Your task to perform on an android device: toggle notification dots Image 0: 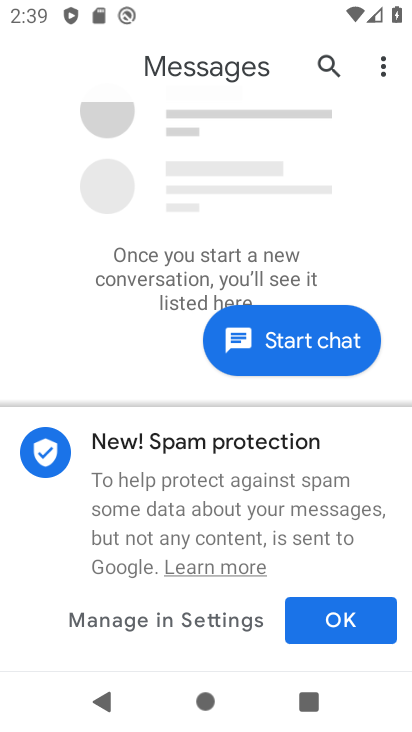
Step 0: press home button
Your task to perform on an android device: toggle notification dots Image 1: 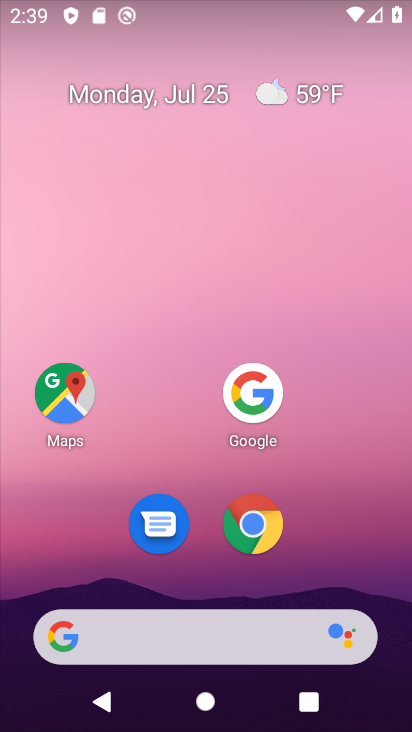
Step 1: drag from (186, 629) to (318, 16)
Your task to perform on an android device: toggle notification dots Image 2: 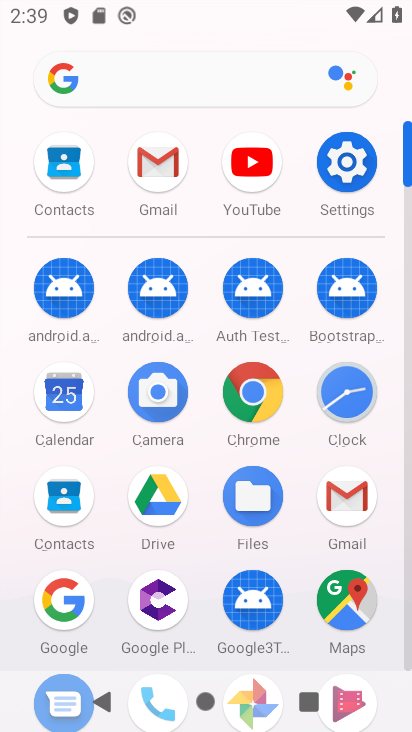
Step 2: click (345, 168)
Your task to perform on an android device: toggle notification dots Image 3: 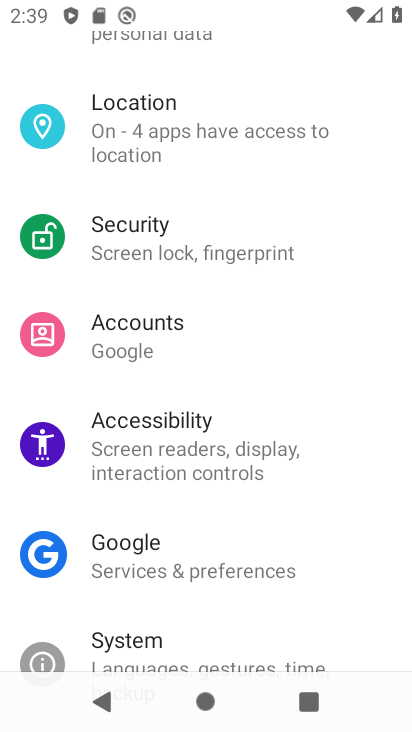
Step 3: drag from (289, 596) to (307, 155)
Your task to perform on an android device: toggle notification dots Image 4: 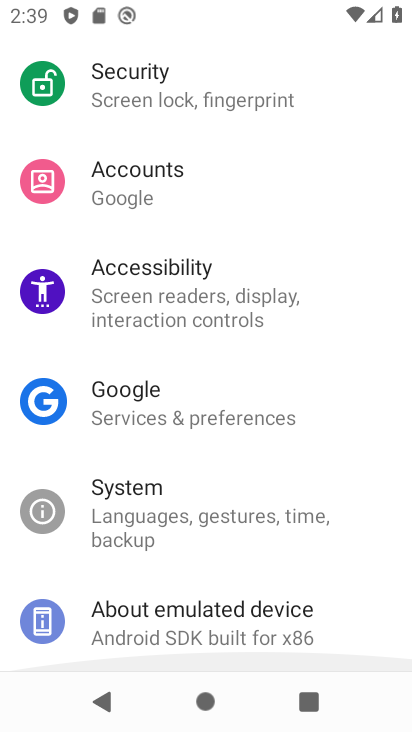
Step 4: drag from (309, 157) to (327, 658)
Your task to perform on an android device: toggle notification dots Image 5: 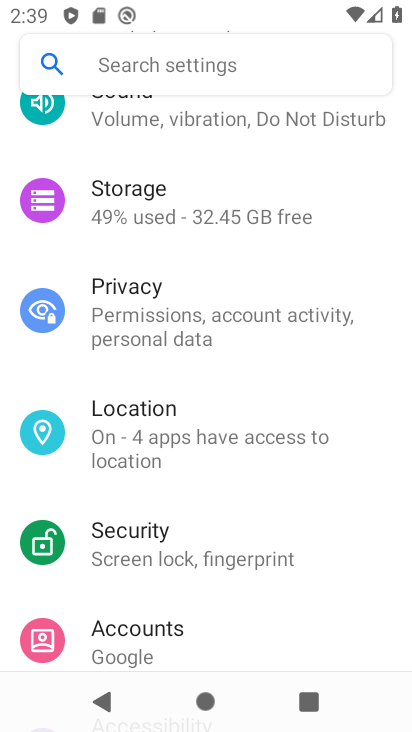
Step 5: drag from (308, 171) to (317, 612)
Your task to perform on an android device: toggle notification dots Image 6: 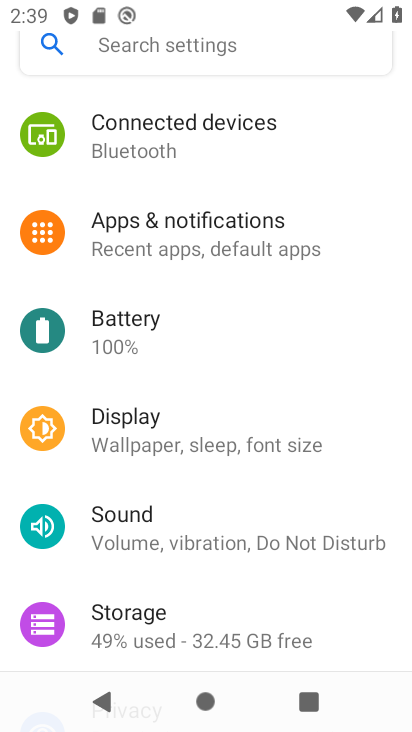
Step 6: click (206, 233)
Your task to perform on an android device: toggle notification dots Image 7: 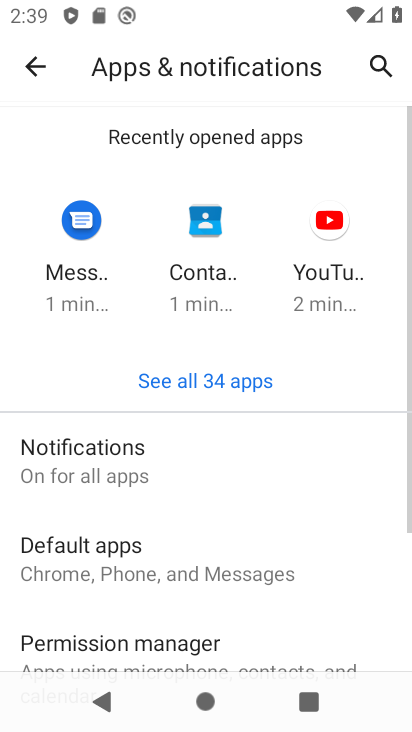
Step 7: click (116, 458)
Your task to perform on an android device: toggle notification dots Image 8: 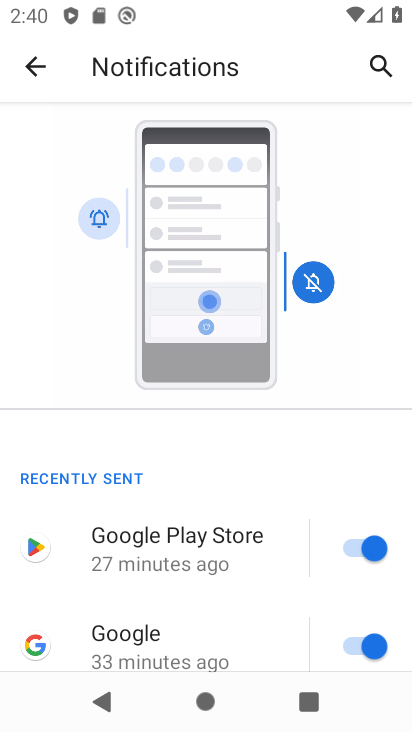
Step 8: drag from (285, 654) to (254, 58)
Your task to perform on an android device: toggle notification dots Image 9: 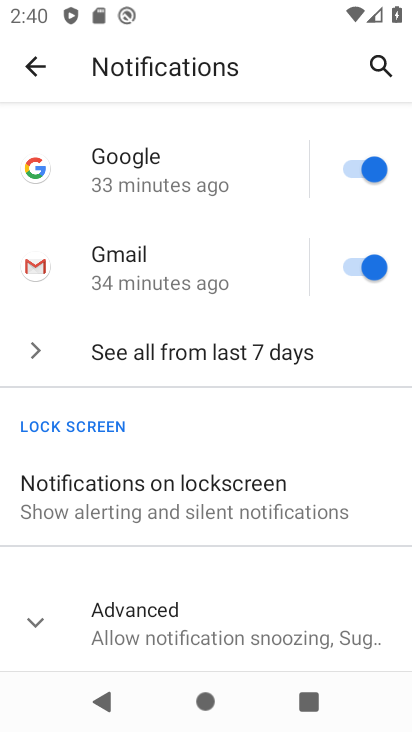
Step 9: click (155, 621)
Your task to perform on an android device: toggle notification dots Image 10: 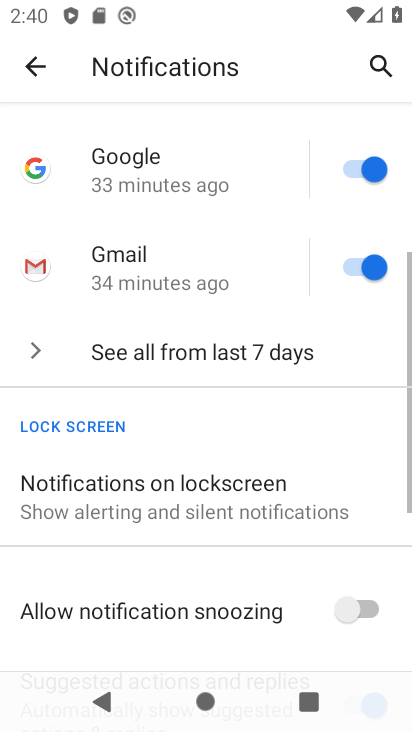
Step 10: drag from (232, 598) to (213, 127)
Your task to perform on an android device: toggle notification dots Image 11: 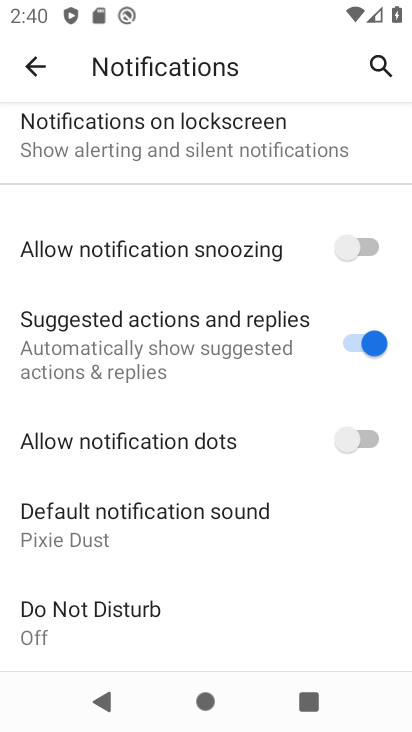
Step 11: click (373, 439)
Your task to perform on an android device: toggle notification dots Image 12: 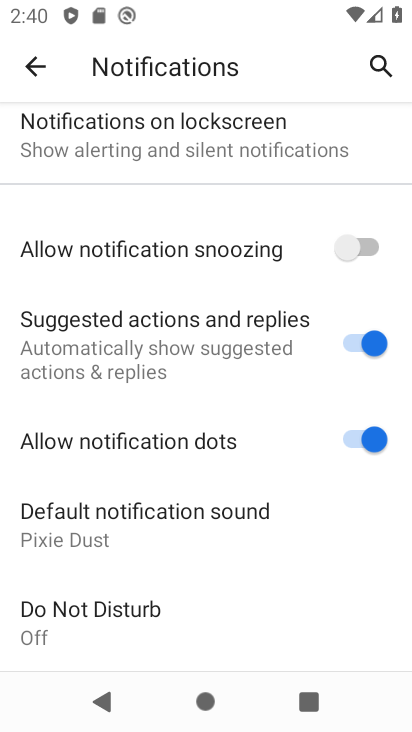
Step 12: task complete